Your task to perform on an android device: toggle show notifications on the lock screen Image 0: 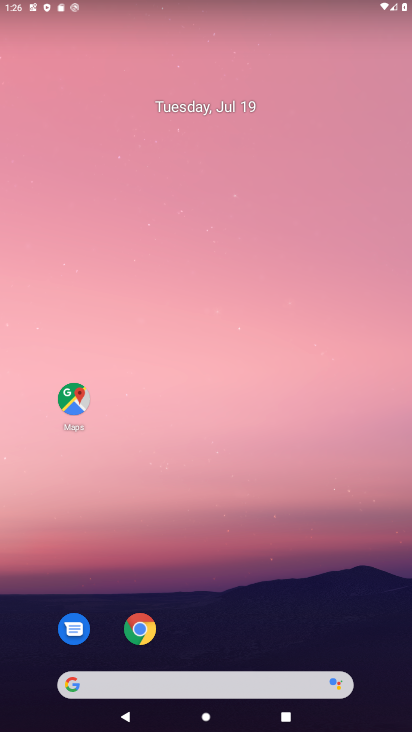
Step 0: drag from (196, 666) to (173, 23)
Your task to perform on an android device: toggle show notifications on the lock screen Image 1: 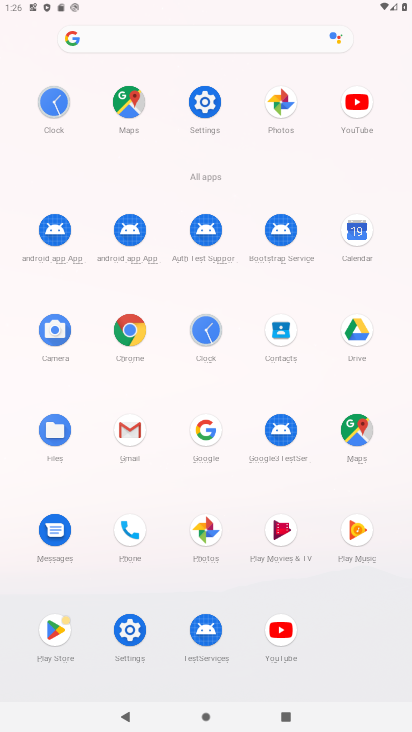
Step 1: click (209, 106)
Your task to perform on an android device: toggle show notifications on the lock screen Image 2: 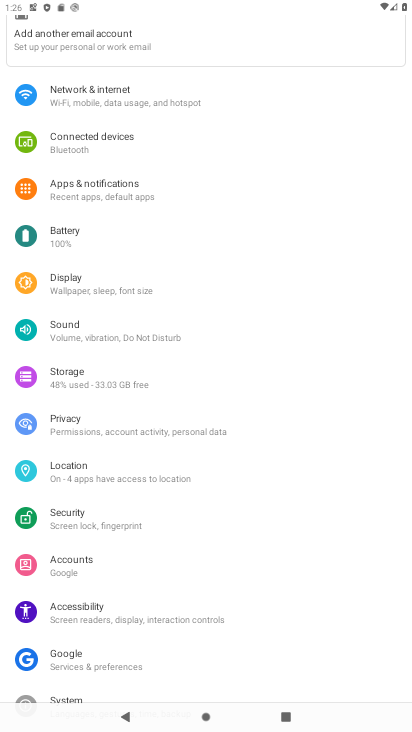
Step 2: click (99, 203)
Your task to perform on an android device: toggle show notifications on the lock screen Image 3: 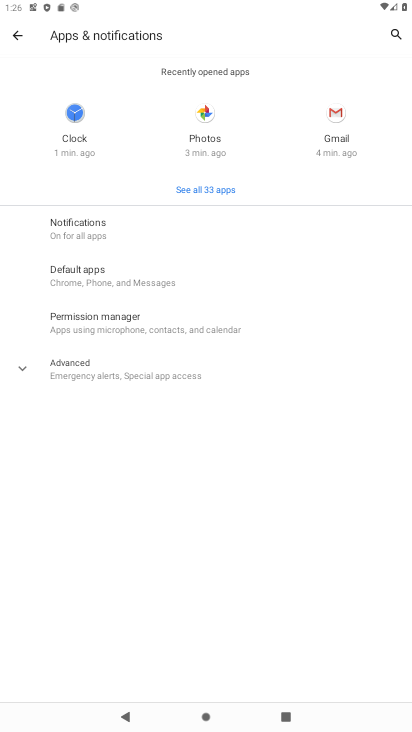
Step 3: click (56, 234)
Your task to perform on an android device: toggle show notifications on the lock screen Image 4: 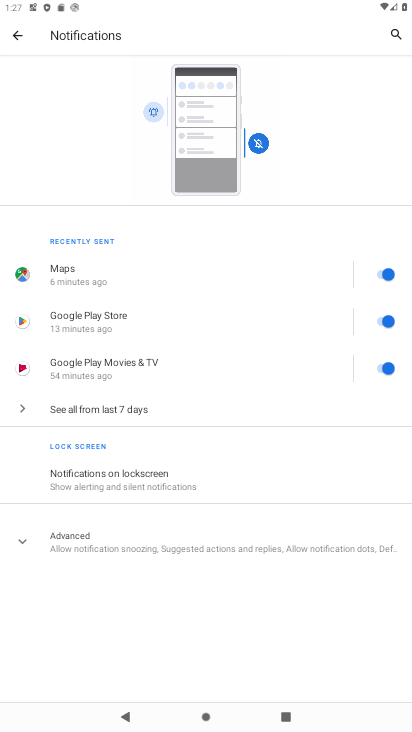
Step 4: click (152, 487)
Your task to perform on an android device: toggle show notifications on the lock screen Image 5: 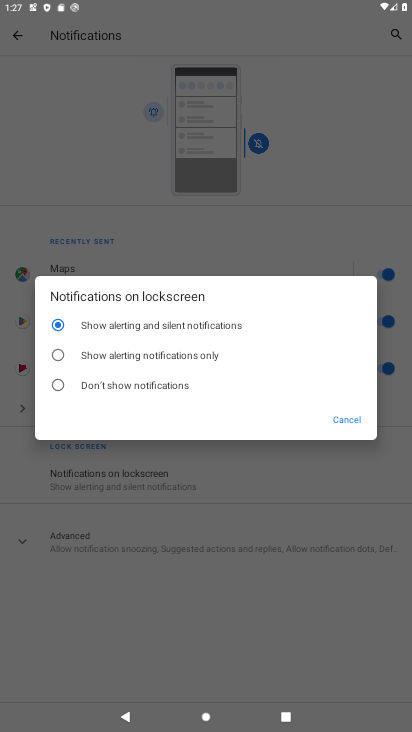
Step 5: click (144, 322)
Your task to perform on an android device: toggle show notifications on the lock screen Image 6: 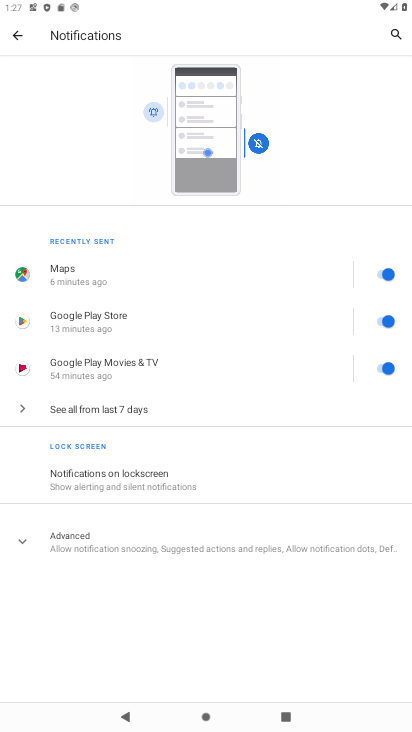
Step 6: task complete